Your task to perform on an android device: Go to settings Image 0: 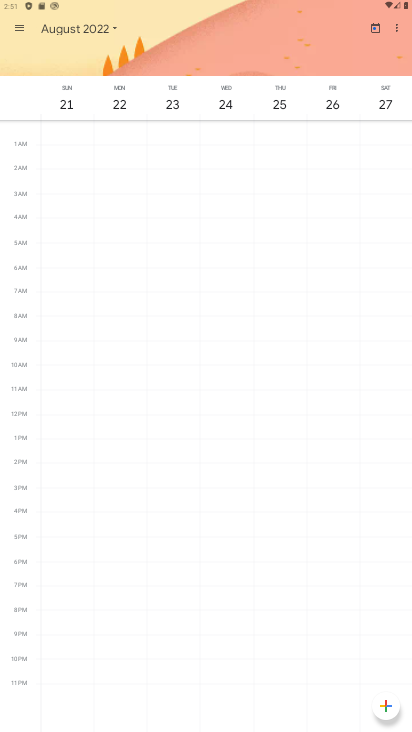
Step 0: press home button
Your task to perform on an android device: Go to settings Image 1: 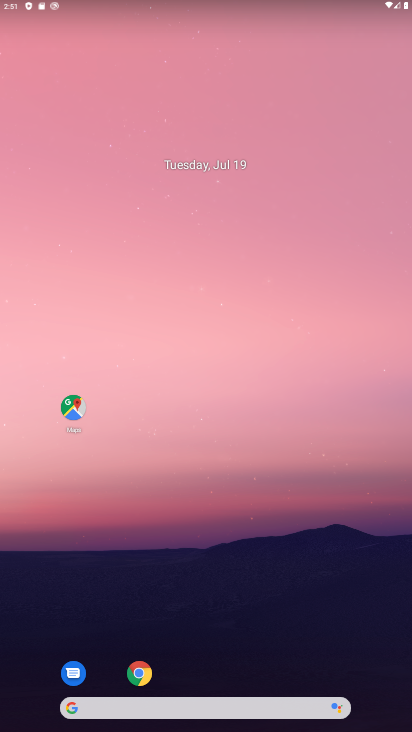
Step 1: drag from (222, 606) to (310, 160)
Your task to perform on an android device: Go to settings Image 2: 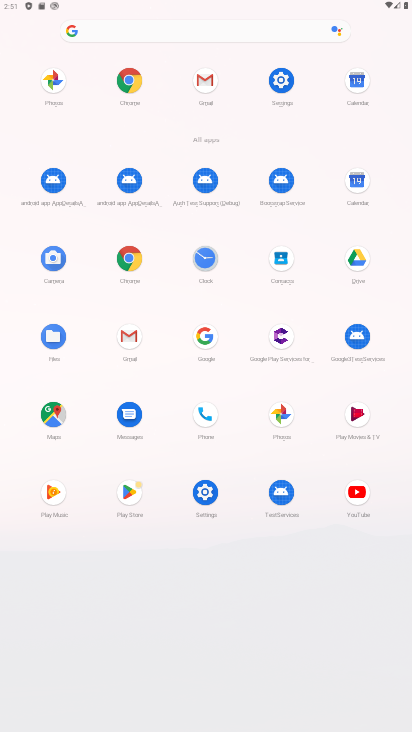
Step 2: click (271, 90)
Your task to perform on an android device: Go to settings Image 3: 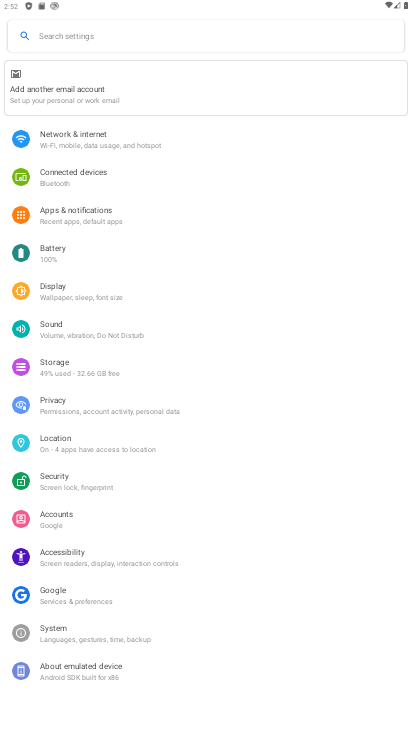
Step 3: task complete